Your task to perform on an android device: Open Amazon Image 0: 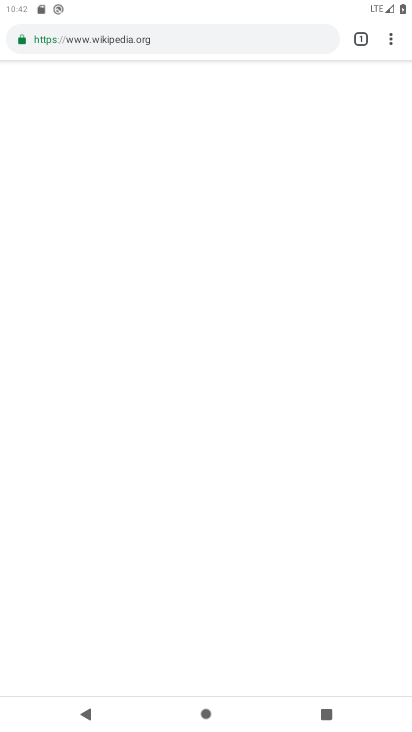
Step 0: click (368, 253)
Your task to perform on an android device: Open Amazon Image 1: 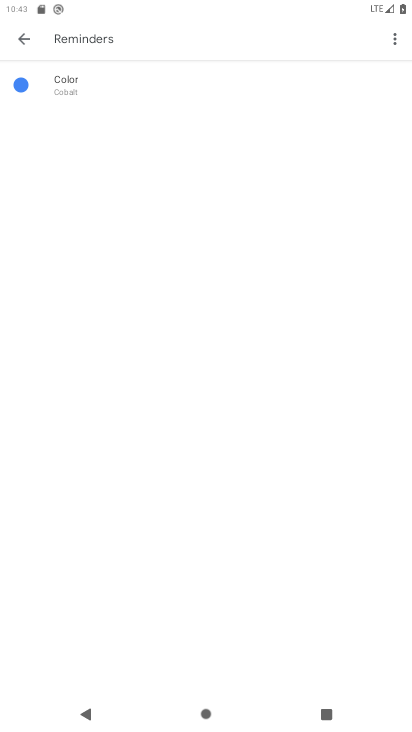
Step 1: press home button
Your task to perform on an android device: Open Amazon Image 2: 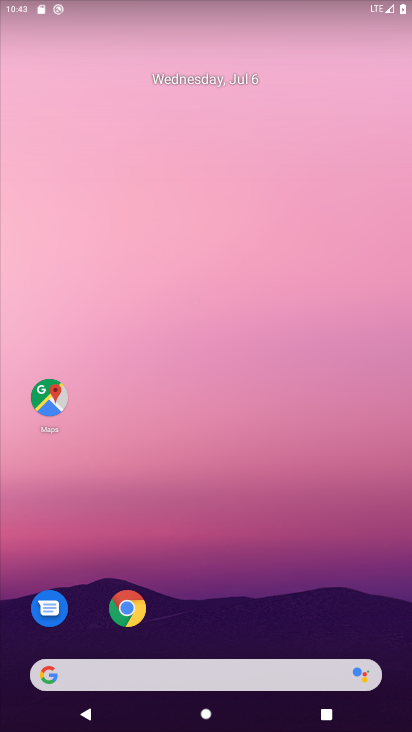
Step 2: click (137, 608)
Your task to perform on an android device: Open Amazon Image 3: 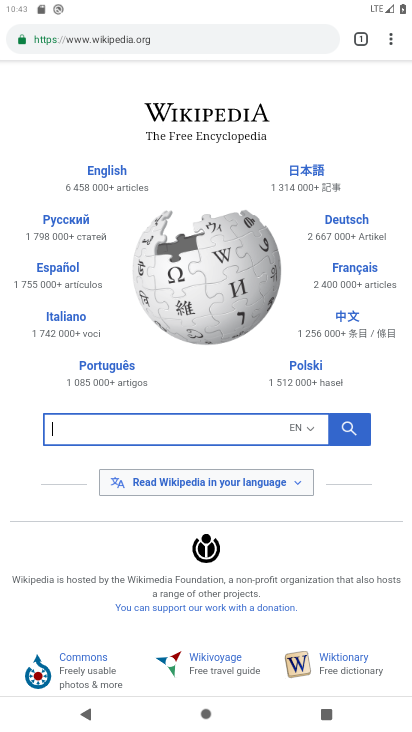
Step 3: click (157, 39)
Your task to perform on an android device: Open Amazon Image 4: 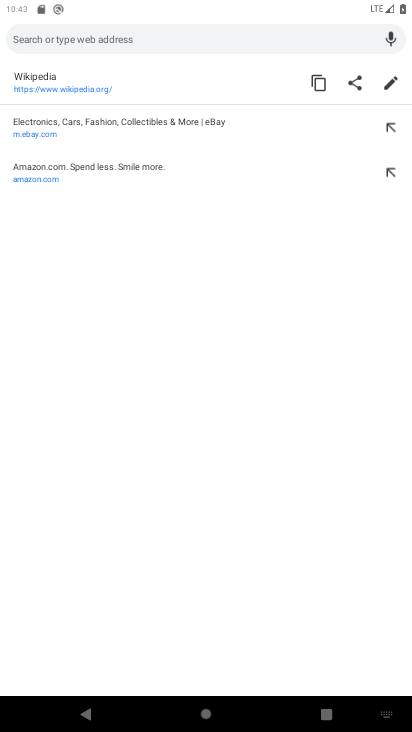
Step 4: type "Amazon"
Your task to perform on an android device: Open Amazon Image 5: 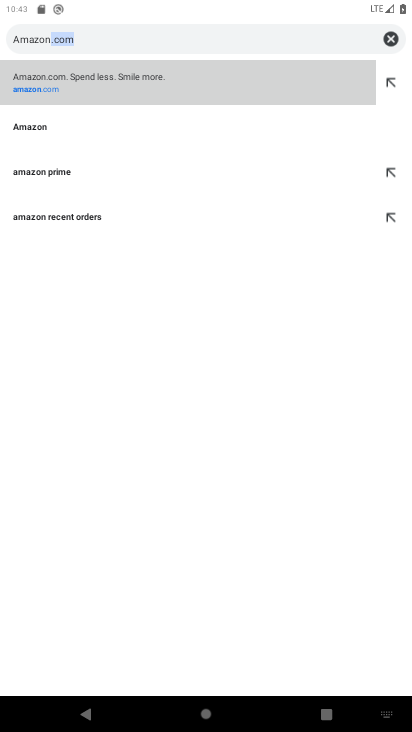
Step 5: click (28, 138)
Your task to perform on an android device: Open Amazon Image 6: 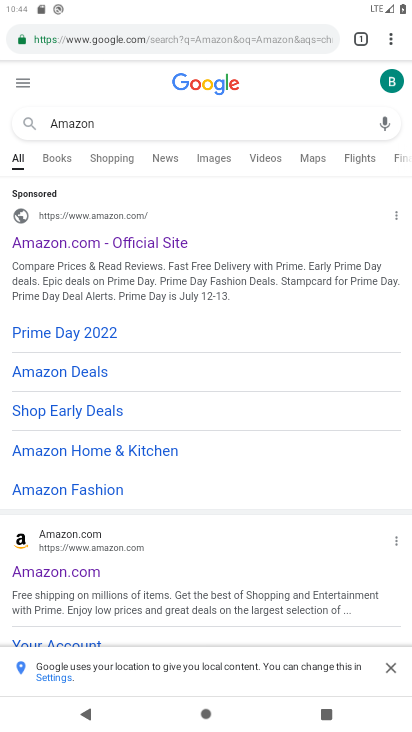
Step 6: task complete